Your task to perform on an android device: change your default location settings in chrome Image 0: 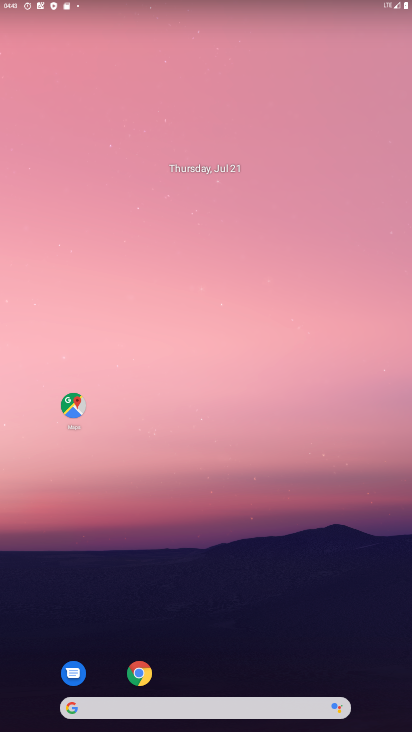
Step 0: drag from (299, 608) to (289, 91)
Your task to perform on an android device: change your default location settings in chrome Image 1: 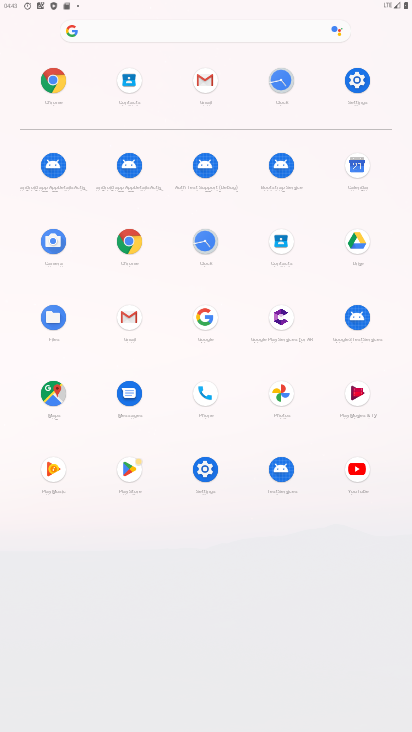
Step 1: click (132, 244)
Your task to perform on an android device: change your default location settings in chrome Image 2: 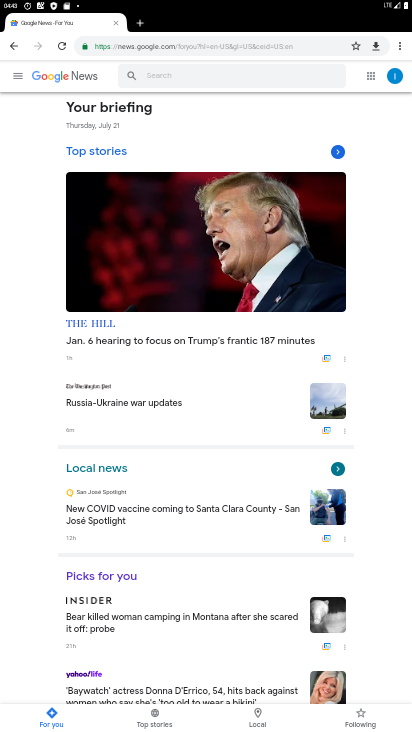
Step 2: drag from (401, 45) to (307, 314)
Your task to perform on an android device: change your default location settings in chrome Image 3: 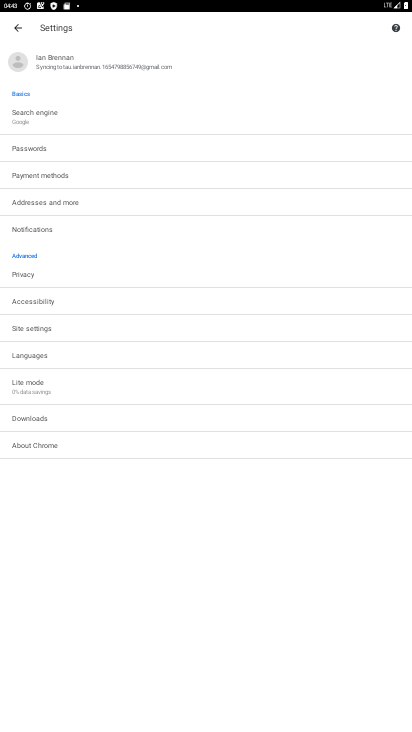
Step 3: click (65, 119)
Your task to perform on an android device: change your default location settings in chrome Image 4: 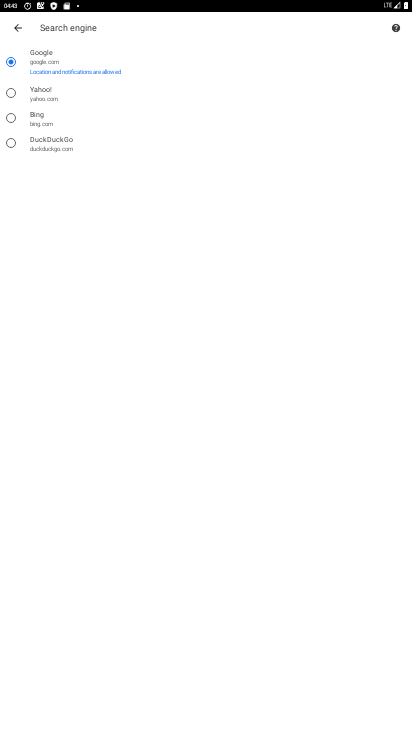
Step 4: task complete